Your task to perform on an android device: turn on notifications settings in the gmail app Image 0: 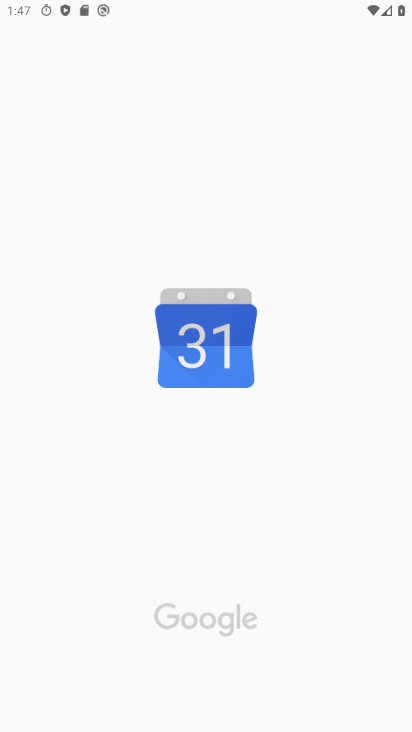
Step 0: press home button
Your task to perform on an android device: turn on notifications settings in the gmail app Image 1: 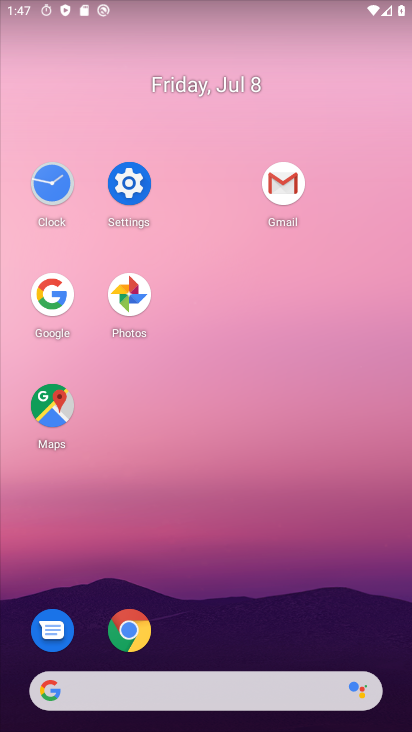
Step 1: click (278, 186)
Your task to perform on an android device: turn on notifications settings in the gmail app Image 2: 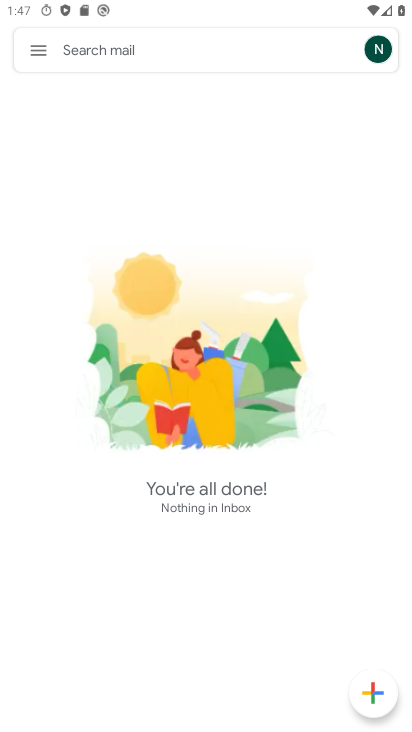
Step 2: click (39, 44)
Your task to perform on an android device: turn on notifications settings in the gmail app Image 3: 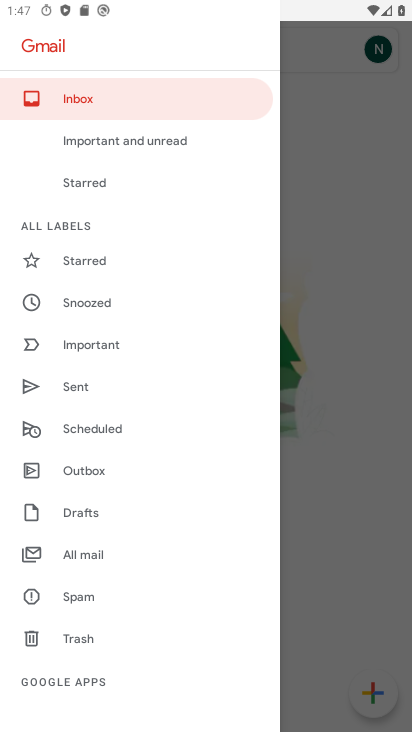
Step 3: drag from (139, 657) to (221, 327)
Your task to perform on an android device: turn on notifications settings in the gmail app Image 4: 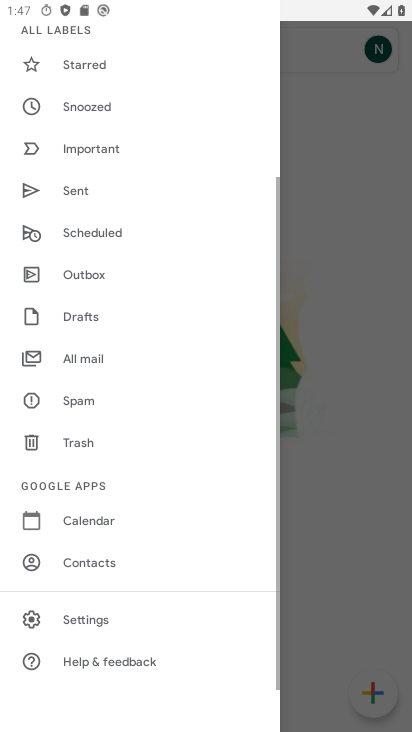
Step 4: click (87, 624)
Your task to perform on an android device: turn on notifications settings in the gmail app Image 5: 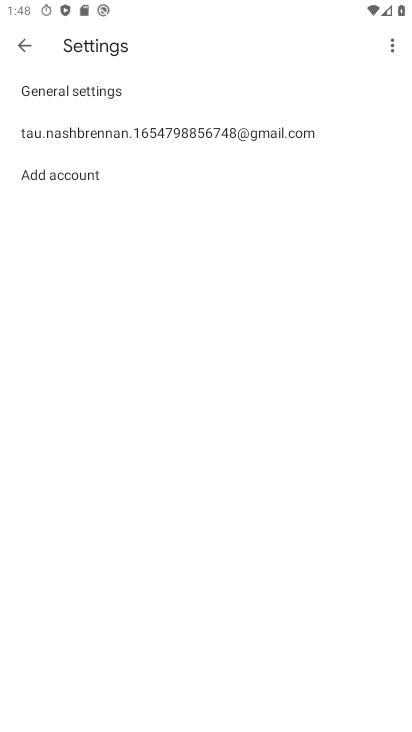
Step 5: click (180, 136)
Your task to perform on an android device: turn on notifications settings in the gmail app Image 6: 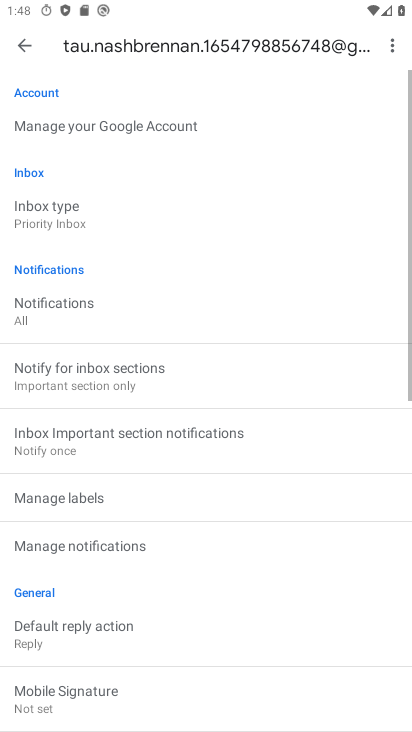
Step 6: click (138, 316)
Your task to perform on an android device: turn on notifications settings in the gmail app Image 7: 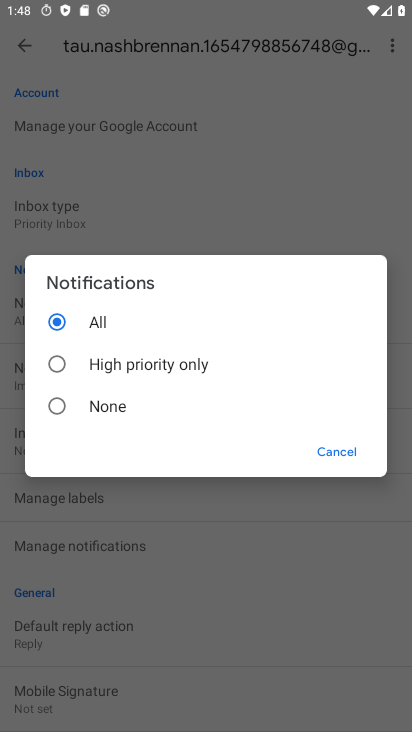
Step 7: task complete